Your task to perform on an android device: Open Google Image 0: 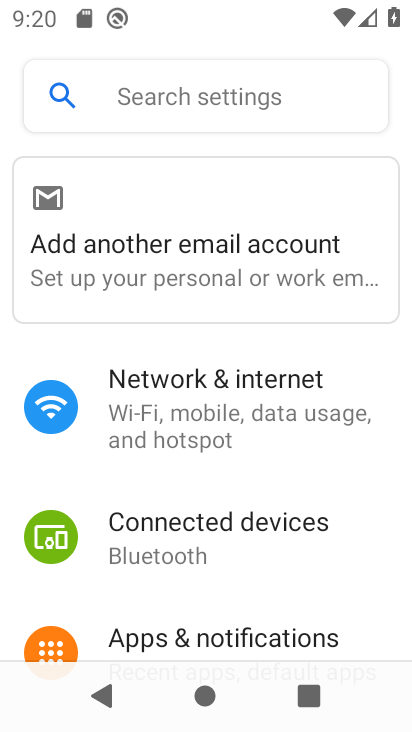
Step 0: press home button
Your task to perform on an android device: Open Google Image 1: 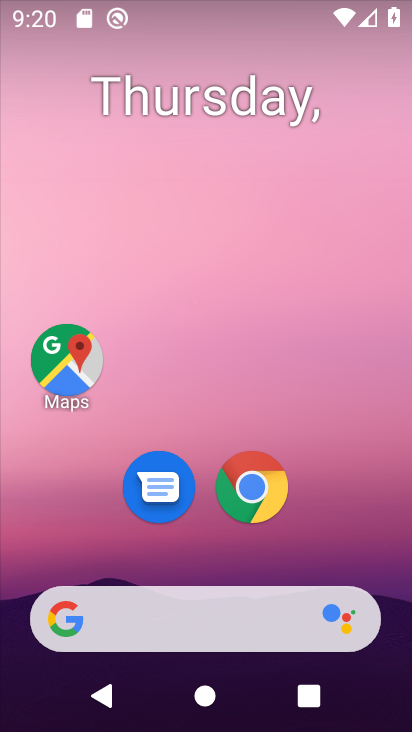
Step 1: click (130, 624)
Your task to perform on an android device: Open Google Image 2: 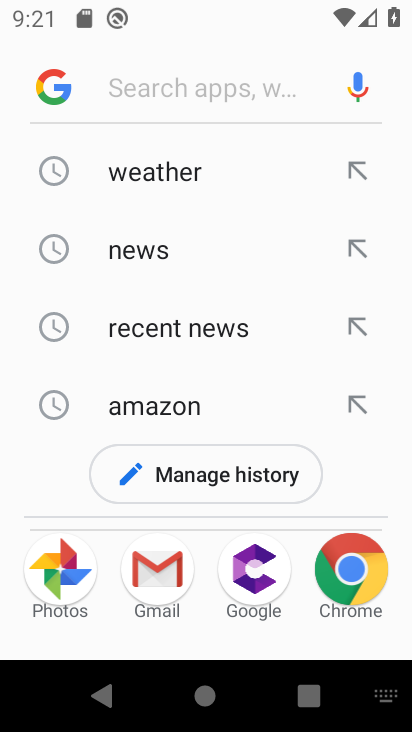
Step 2: click (54, 84)
Your task to perform on an android device: Open Google Image 3: 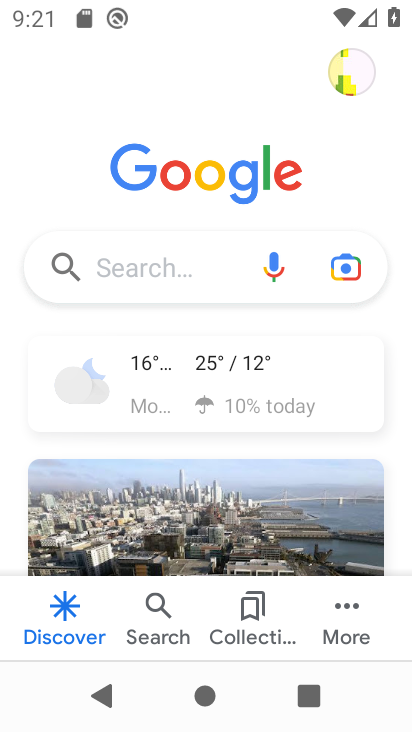
Step 3: click (159, 247)
Your task to perform on an android device: Open Google Image 4: 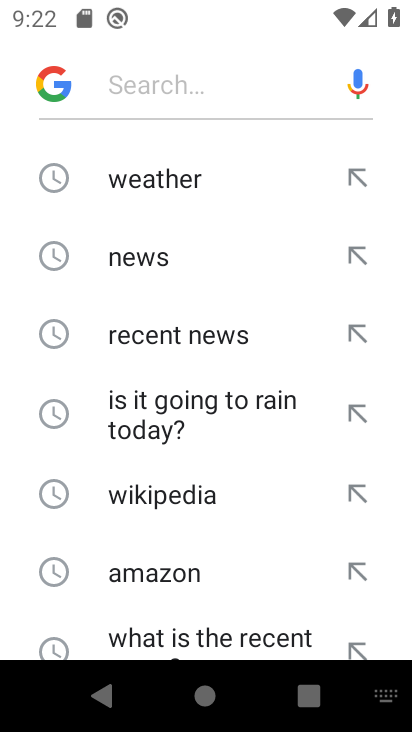
Step 4: click (51, 96)
Your task to perform on an android device: Open Google Image 5: 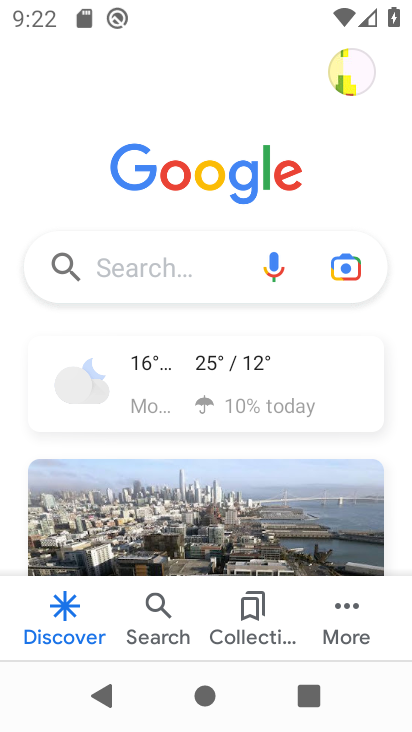
Step 5: task complete